Your task to perform on an android device: Open my contact list Image 0: 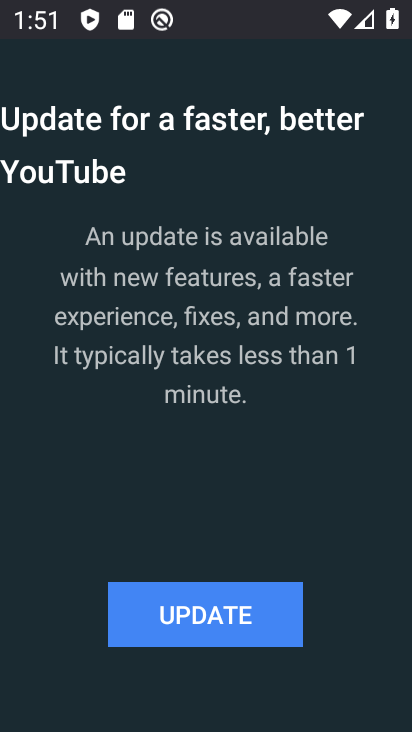
Step 0: press home button
Your task to perform on an android device: Open my contact list Image 1: 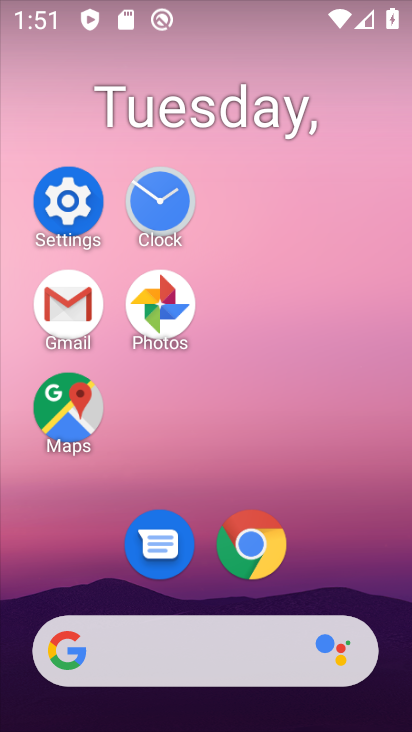
Step 1: drag from (322, 584) to (339, 148)
Your task to perform on an android device: Open my contact list Image 2: 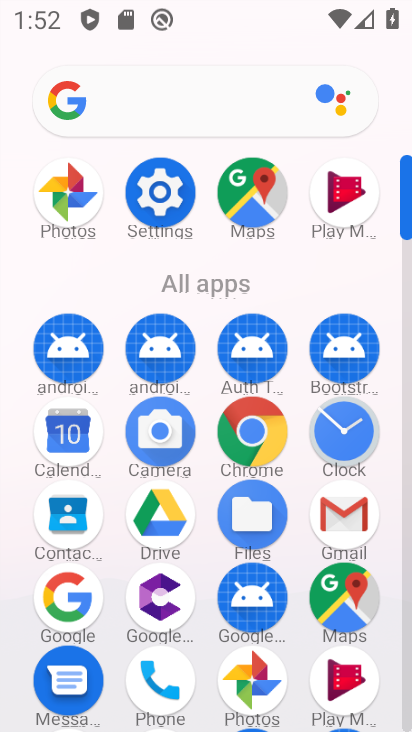
Step 2: click (82, 542)
Your task to perform on an android device: Open my contact list Image 3: 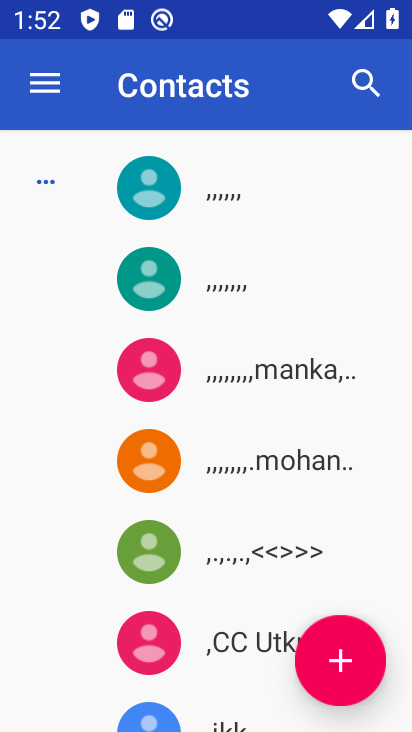
Step 3: task complete